Your task to perform on an android device: open a bookmark in the chrome app Image 0: 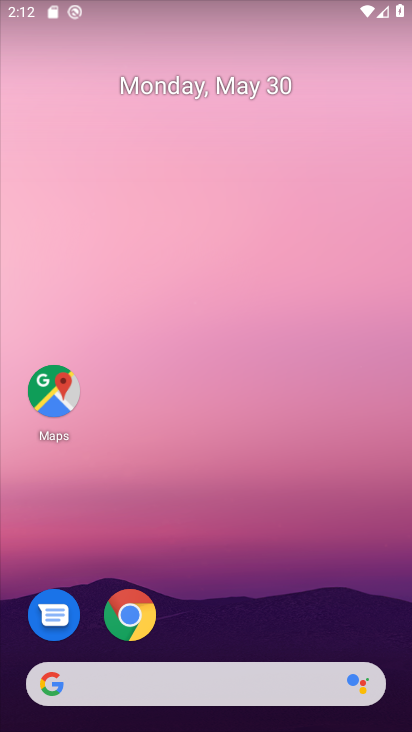
Step 0: click (137, 608)
Your task to perform on an android device: open a bookmark in the chrome app Image 1: 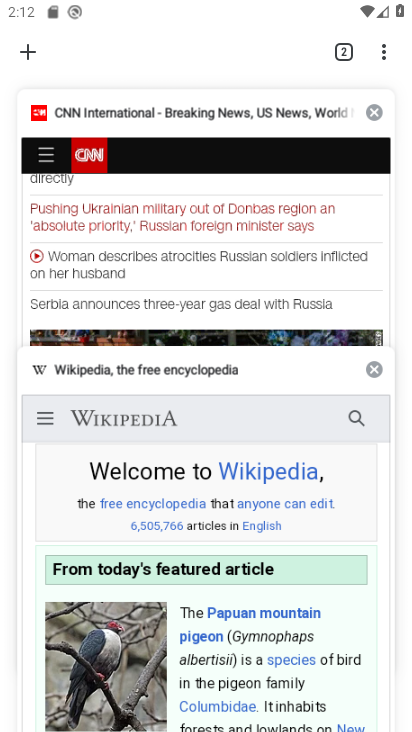
Step 1: click (377, 51)
Your task to perform on an android device: open a bookmark in the chrome app Image 2: 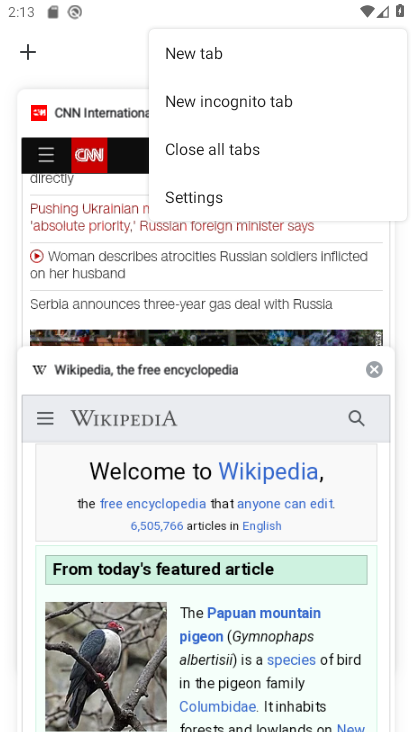
Step 2: click (313, 194)
Your task to perform on an android device: open a bookmark in the chrome app Image 3: 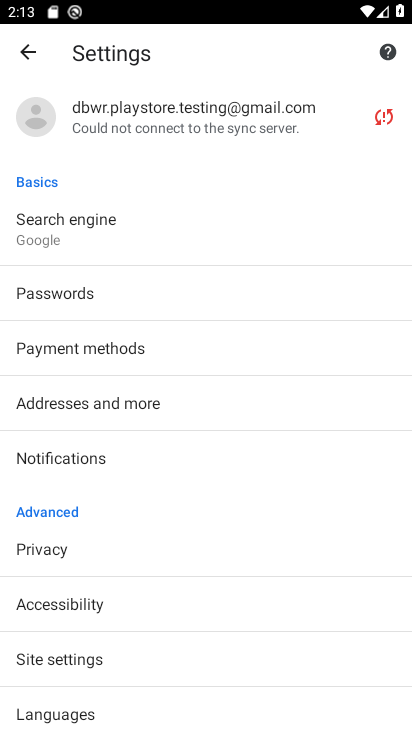
Step 3: click (25, 42)
Your task to perform on an android device: open a bookmark in the chrome app Image 4: 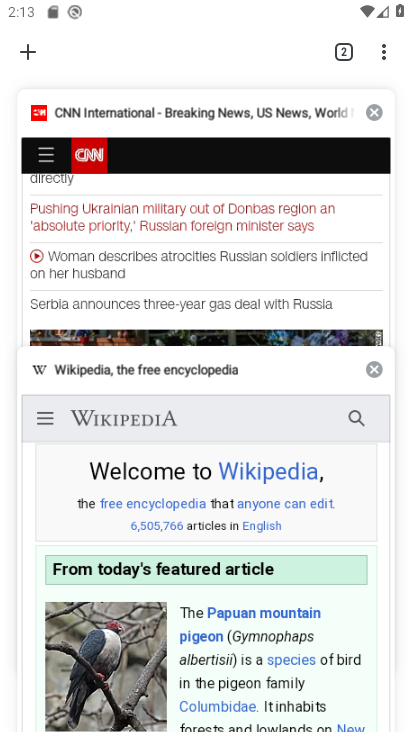
Step 4: click (210, 530)
Your task to perform on an android device: open a bookmark in the chrome app Image 5: 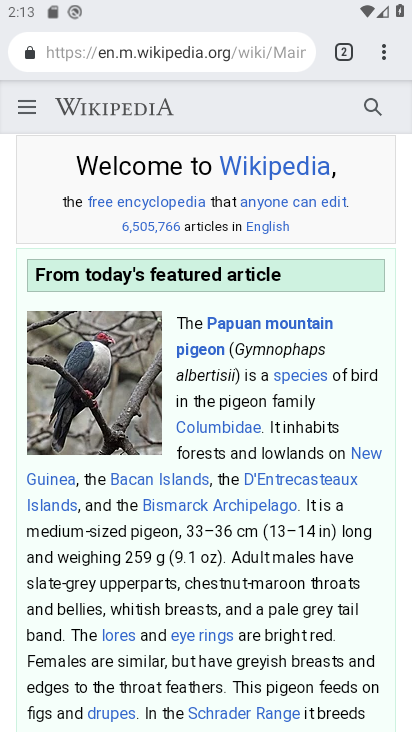
Step 5: click (379, 54)
Your task to perform on an android device: open a bookmark in the chrome app Image 6: 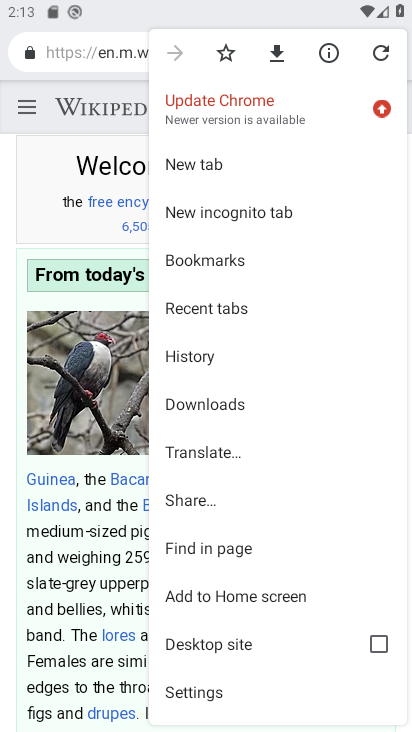
Step 6: click (227, 249)
Your task to perform on an android device: open a bookmark in the chrome app Image 7: 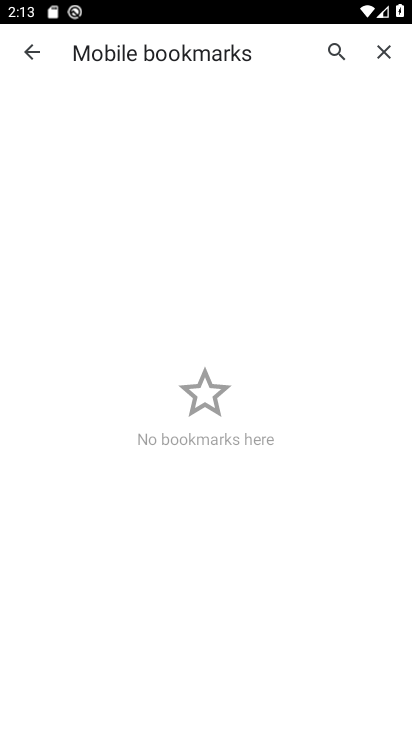
Step 7: task complete